Your task to perform on an android device: open app "Messages" Image 0: 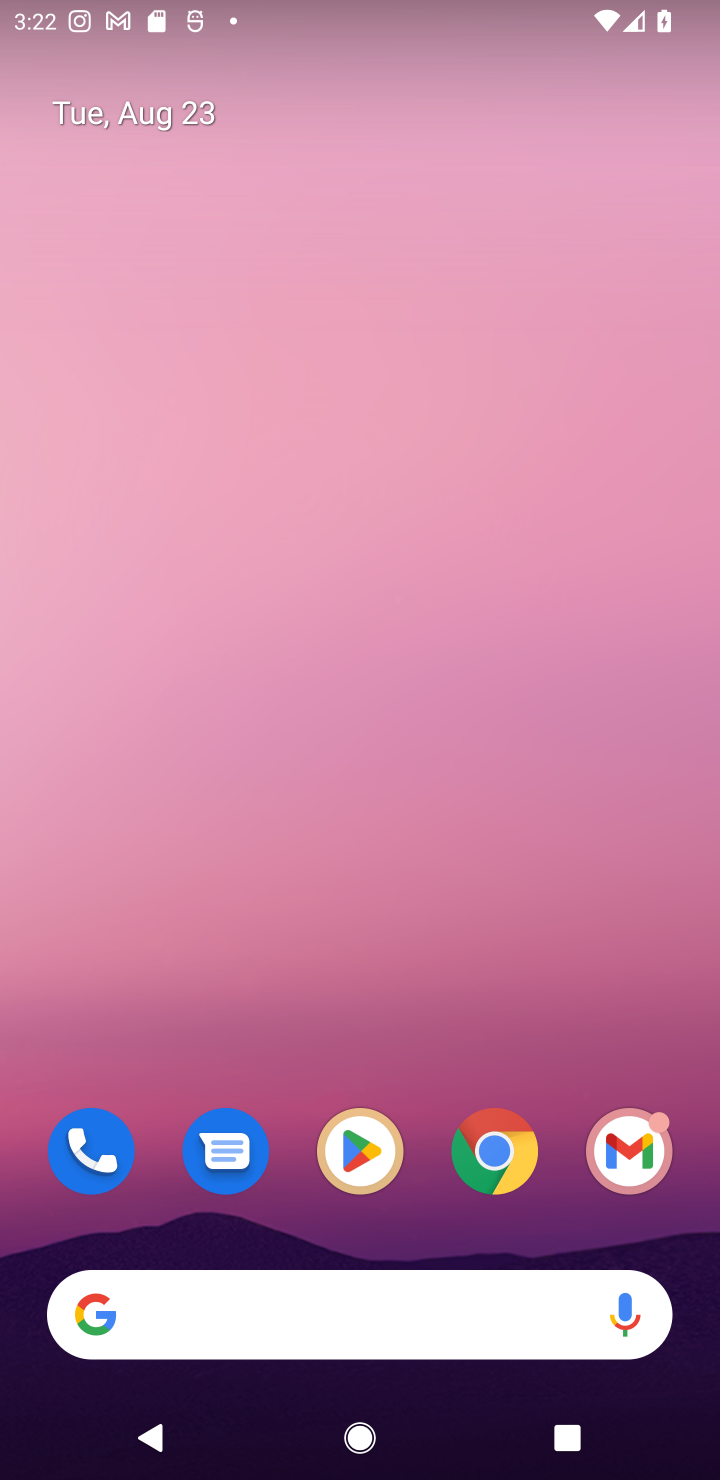
Step 0: click (358, 1150)
Your task to perform on an android device: open app "Messages" Image 1: 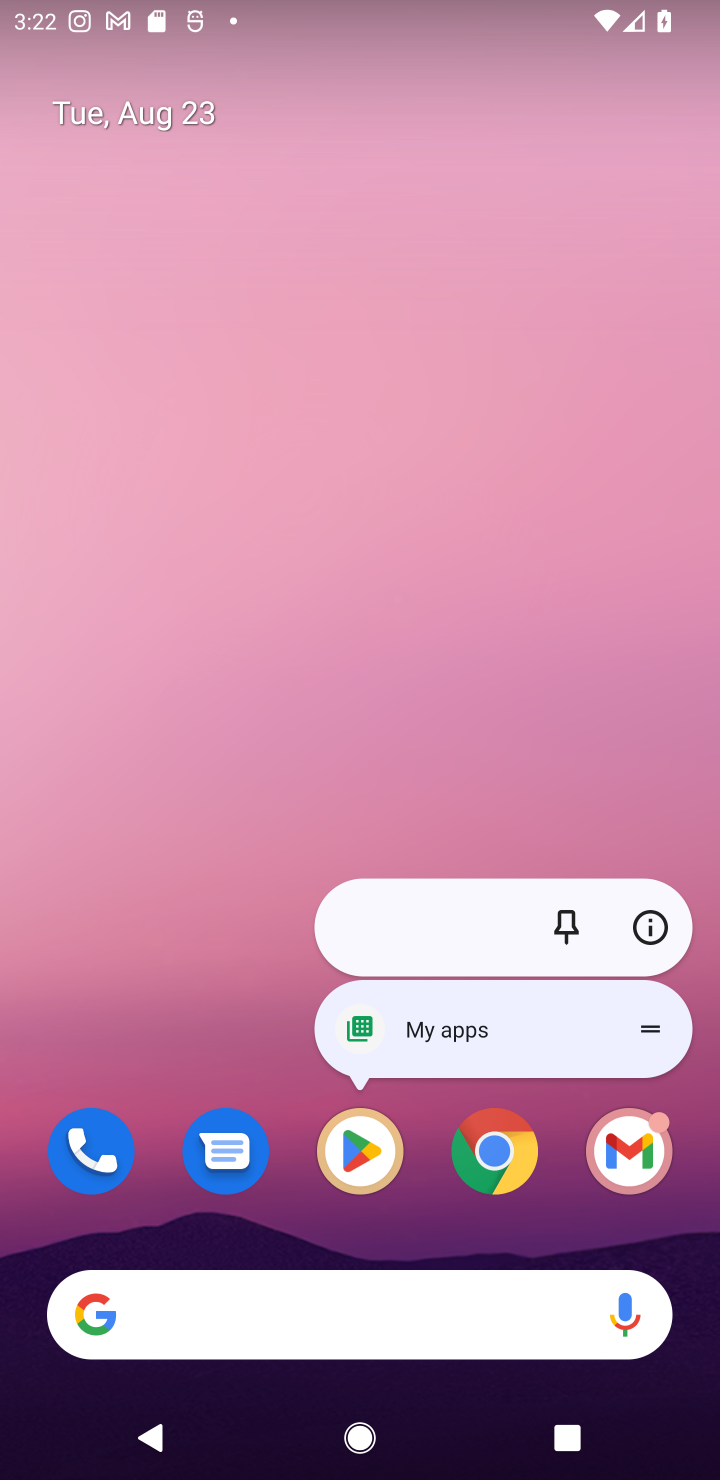
Step 1: click (358, 1156)
Your task to perform on an android device: open app "Messages" Image 2: 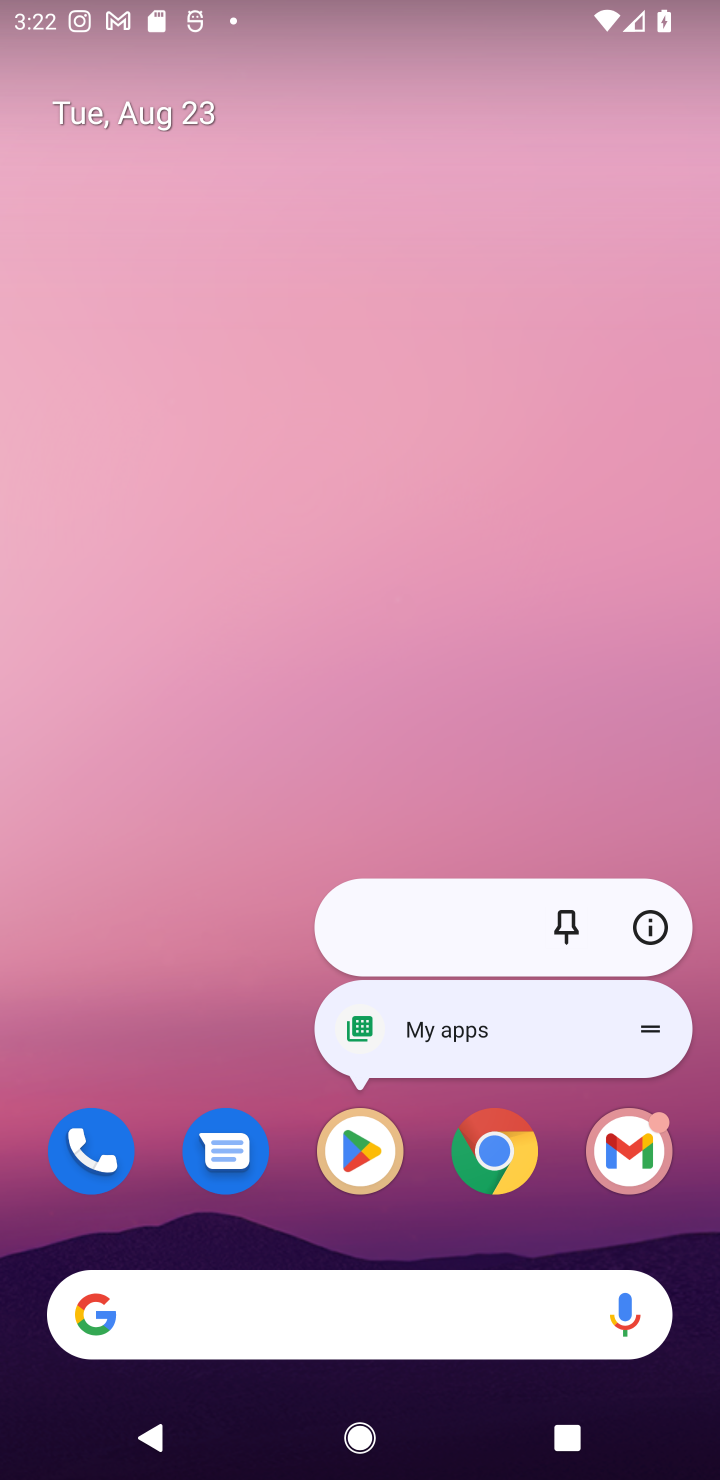
Step 2: click (358, 1156)
Your task to perform on an android device: open app "Messages" Image 3: 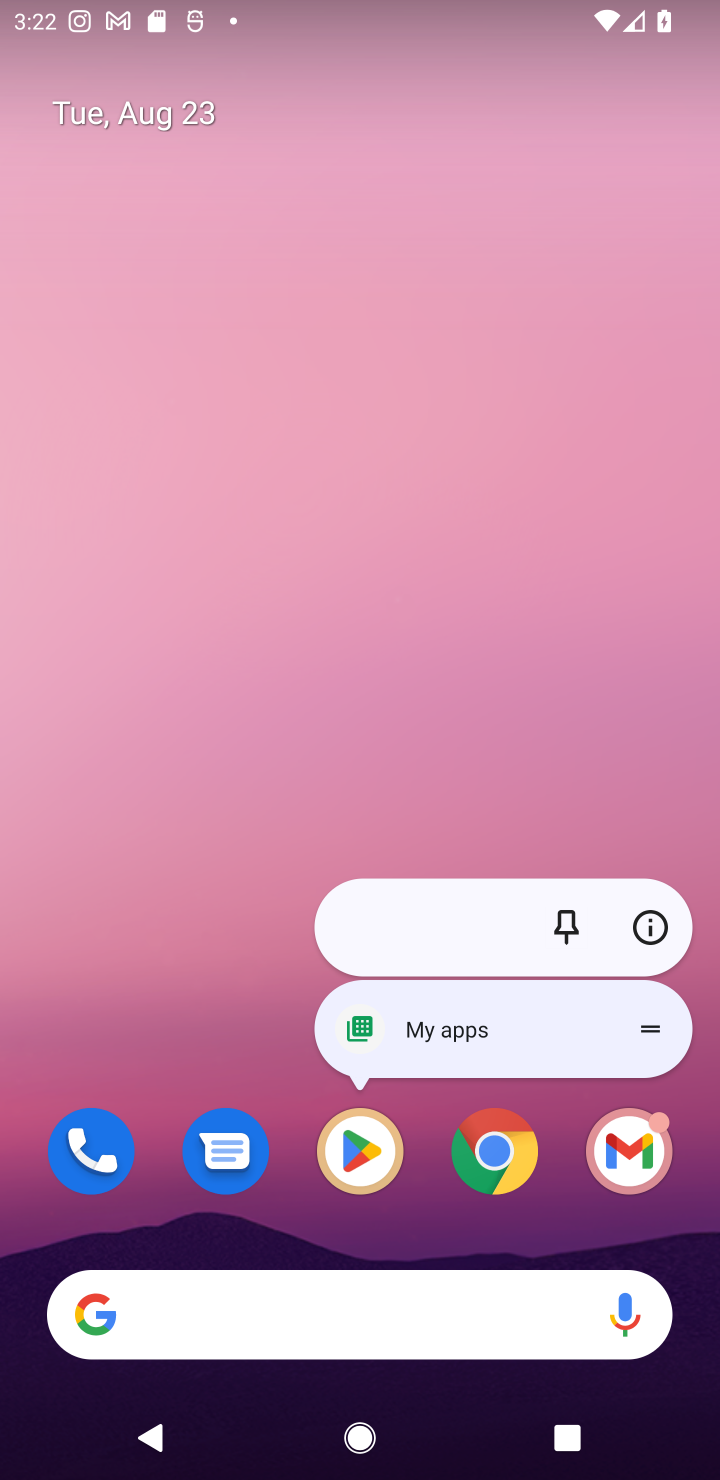
Step 3: click (358, 1156)
Your task to perform on an android device: open app "Messages" Image 4: 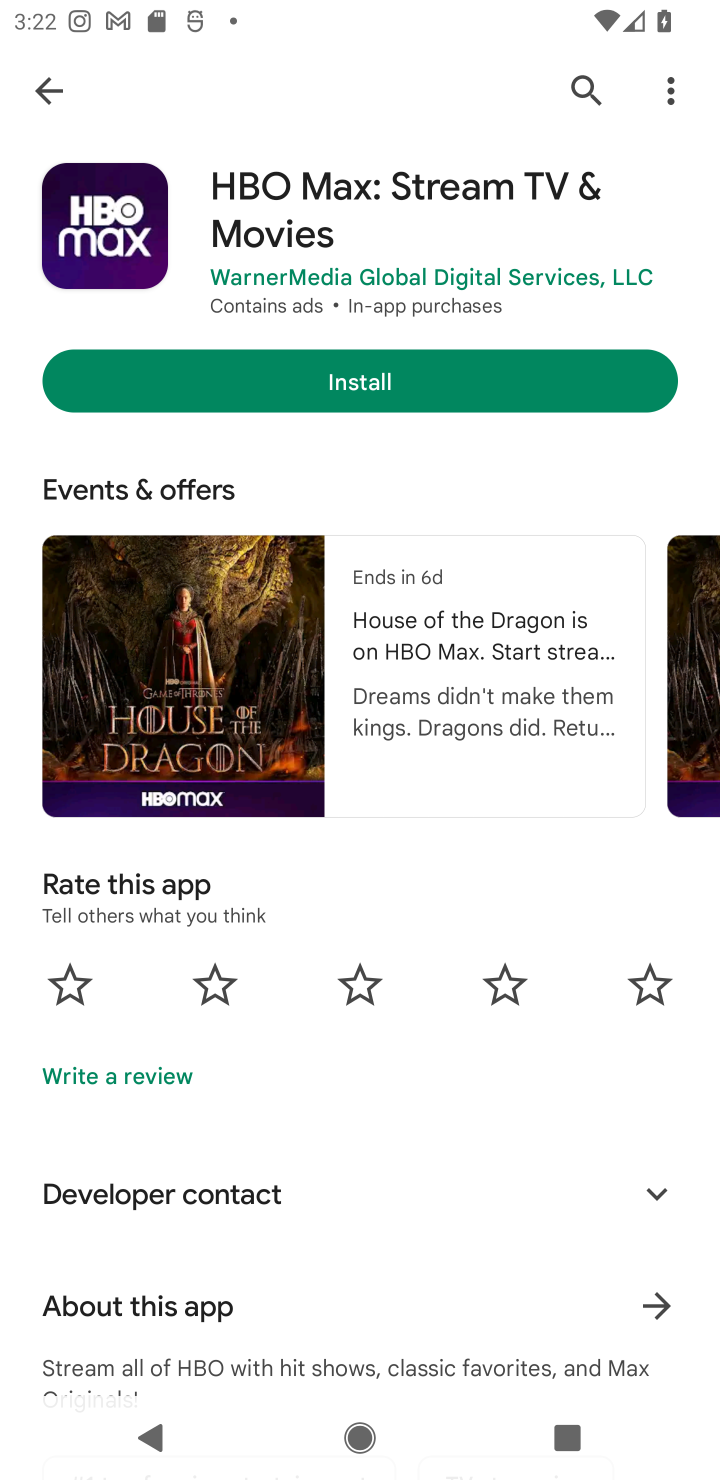
Step 4: click (583, 73)
Your task to perform on an android device: open app "Messages" Image 5: 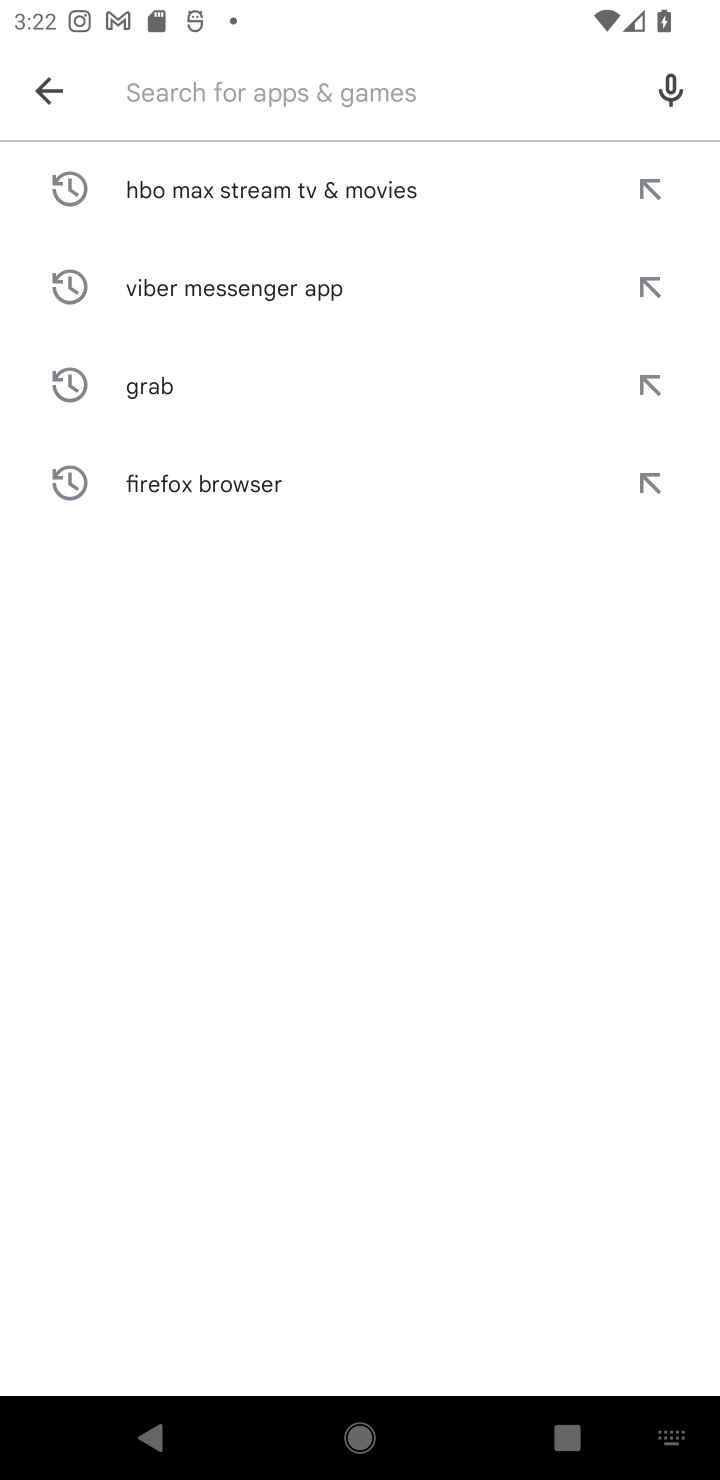
Step 5: type "Messages"
Your task to perform on an android device: open app "Messages" Image 6: 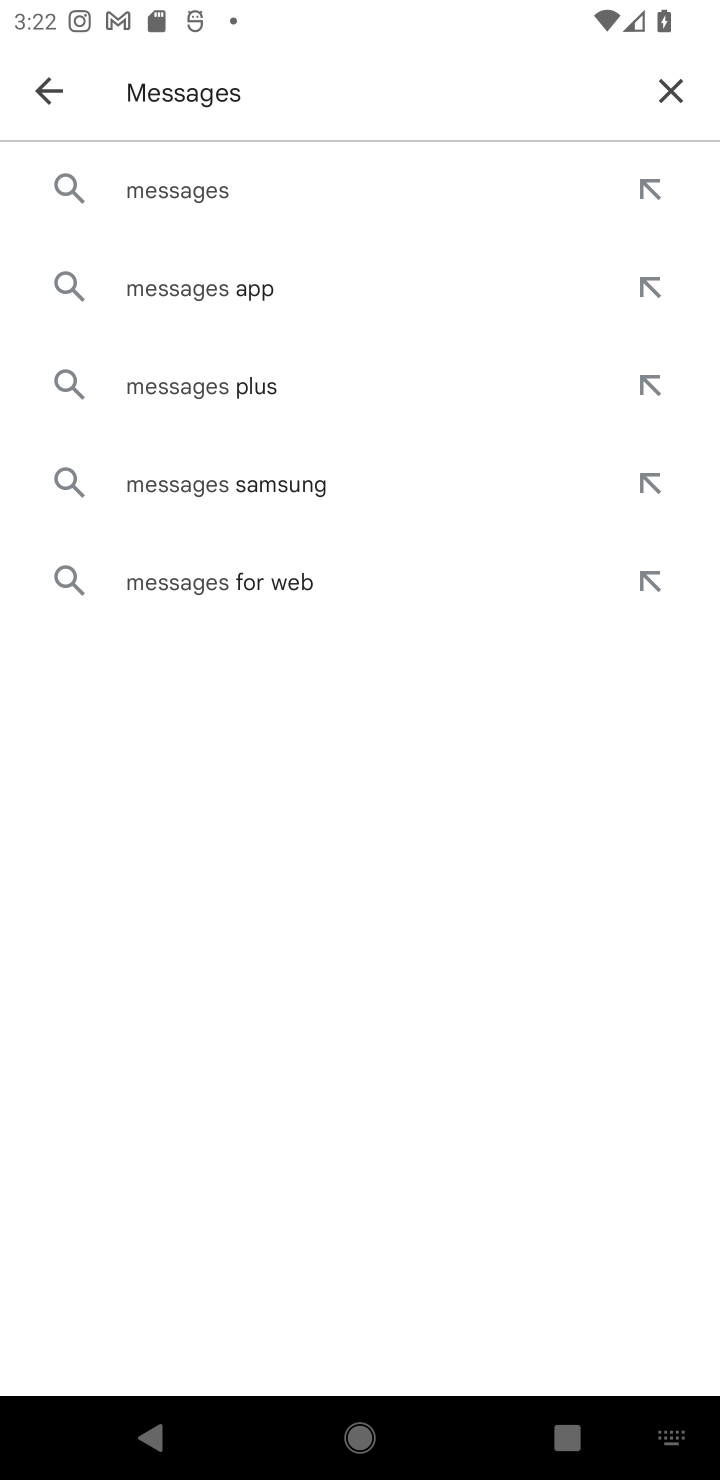
Step 6: click (189, 188)
Your task to perform on an android device: open app "Messages" Image 7: 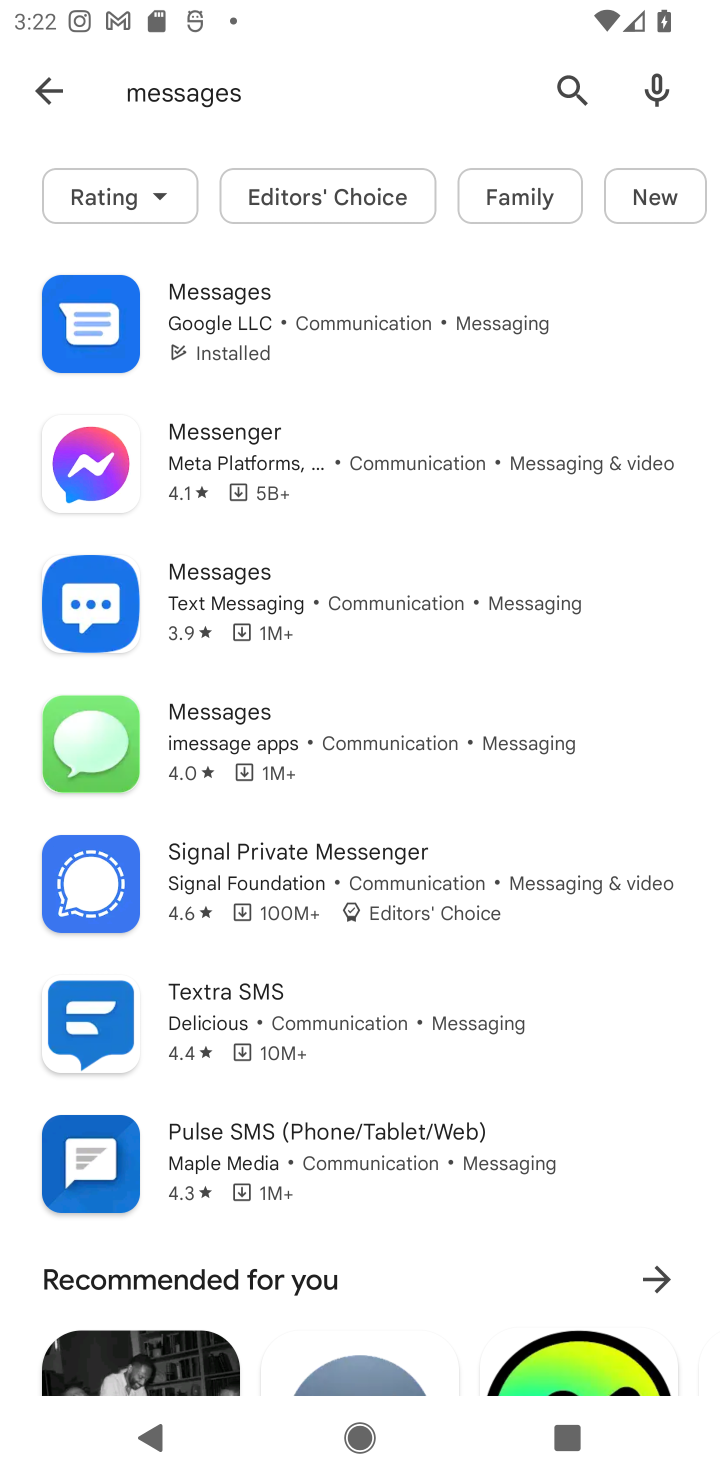
Step 7: click (280, 303)
Your task to perform on an android device: open app "Messages" Image 8: 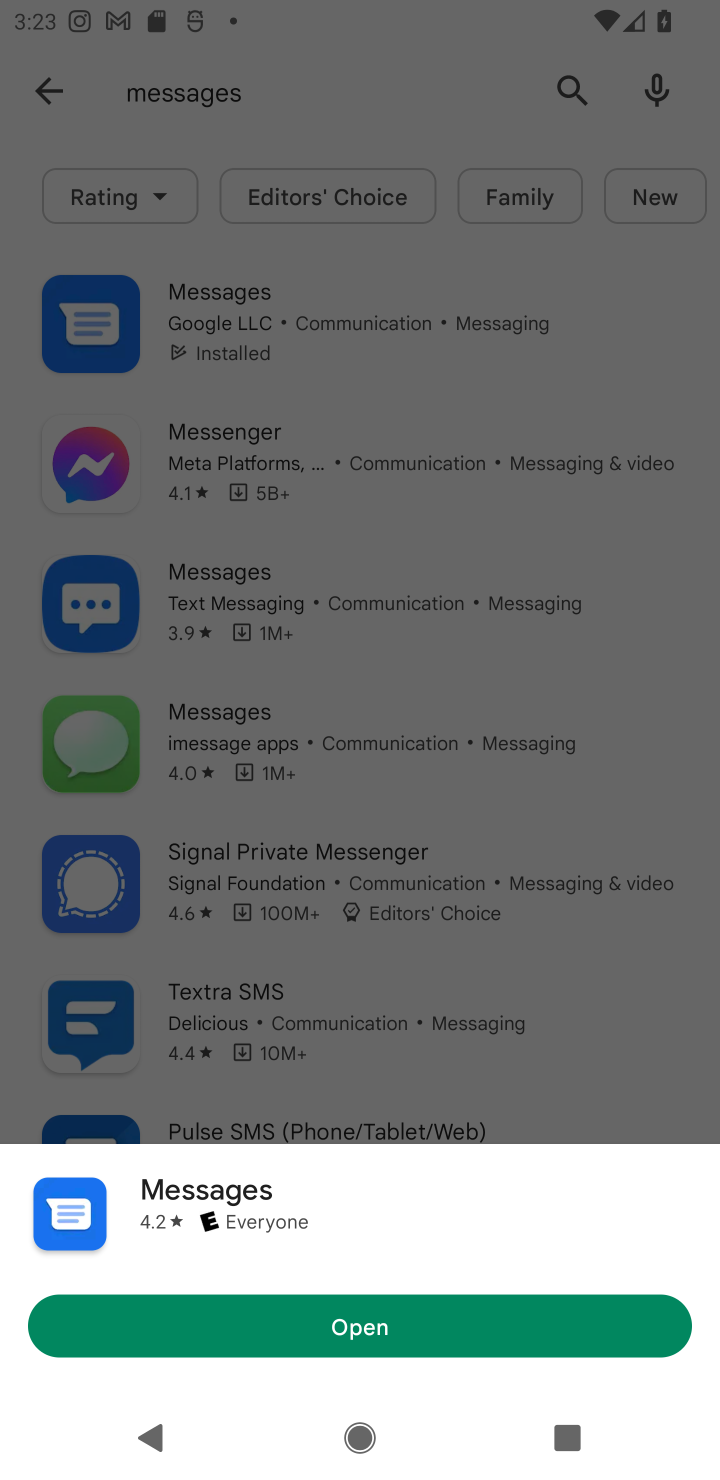
Step 8: click (366, 1322)
Your task to perform on an android device: open app "Messages" Image 9: 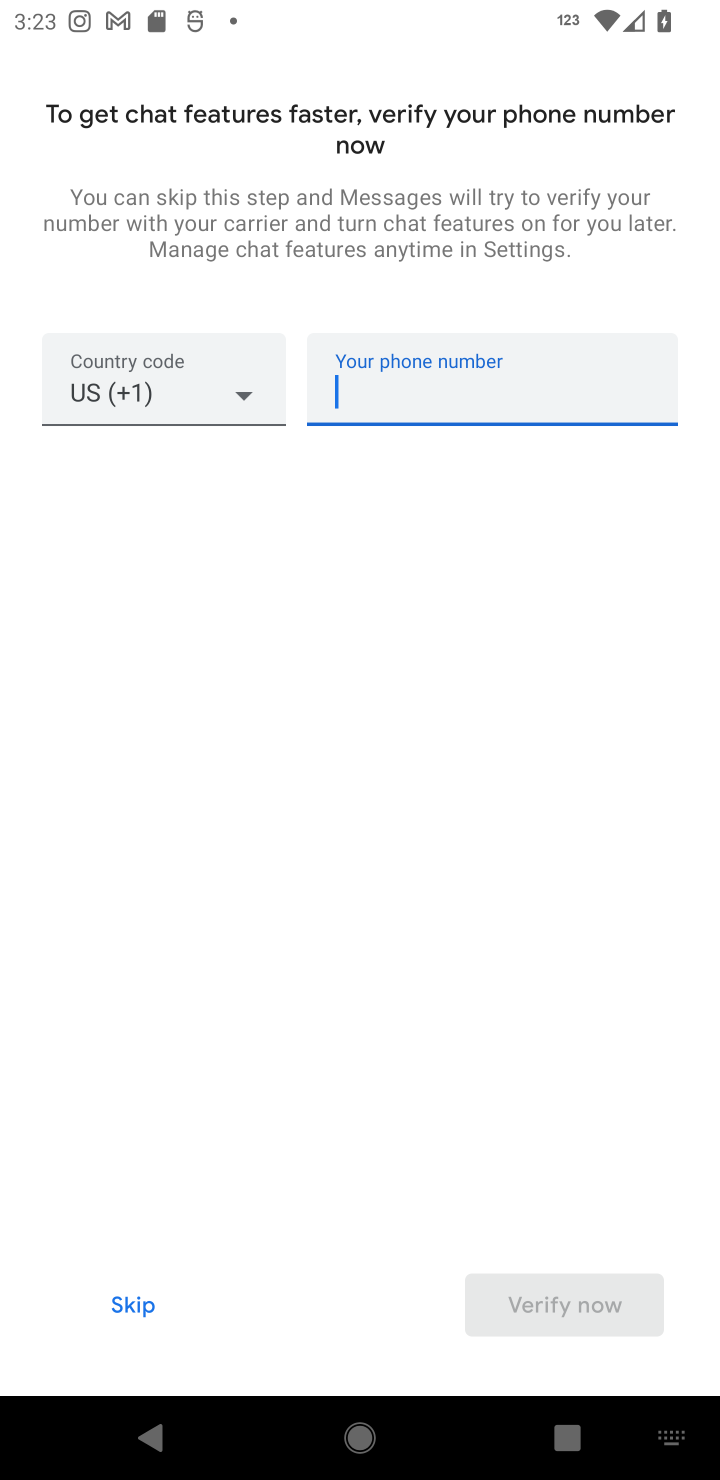
Step 9: task complete